Your task to perform on an android device: snooze an email in the gmail app Image 0: 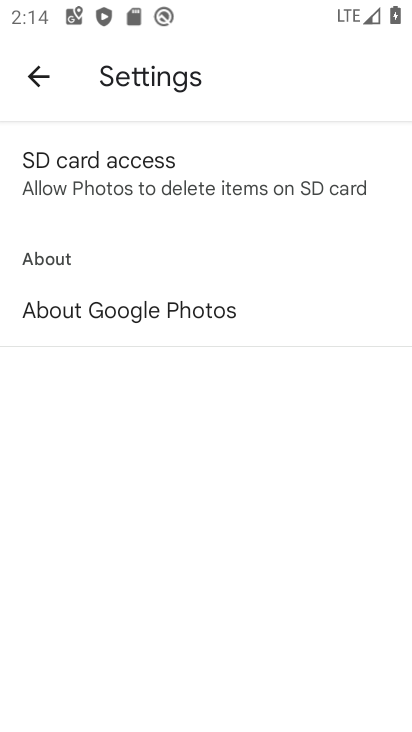
Step 0: press home button
Your task to perform on an android device: snooze an email in the gmail app Image 1: 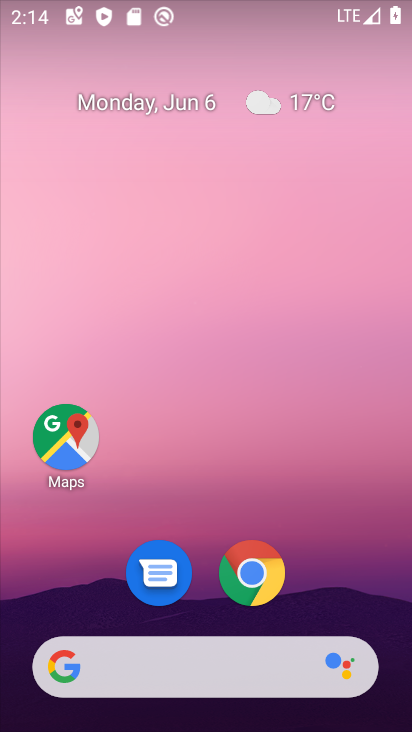
Step 1: drag from (355, 612) to (362, 290)
Your task to perform on an android device: snooze an email in the gmail app Image 2: 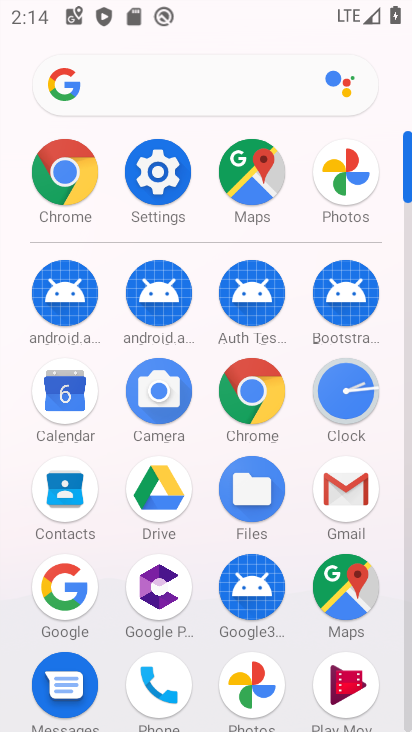
Step 2: click (348, 491)
Your task to perform on an android device: snooze an email in the gmail app Image 3: 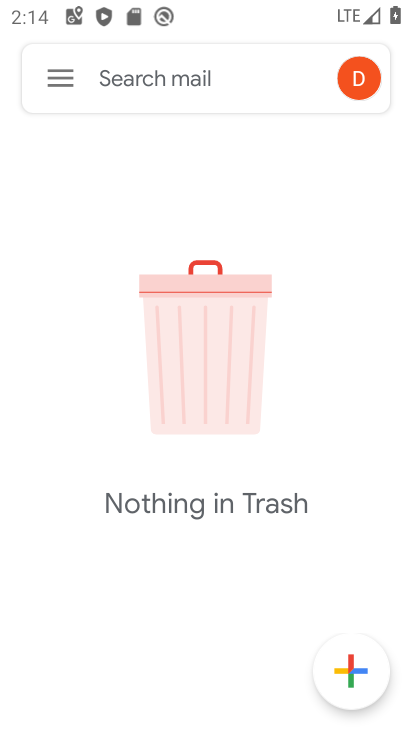
Step 3: click (48, 84)
Your task to perform on an android device: snooze an email in the gmail app Image 4: 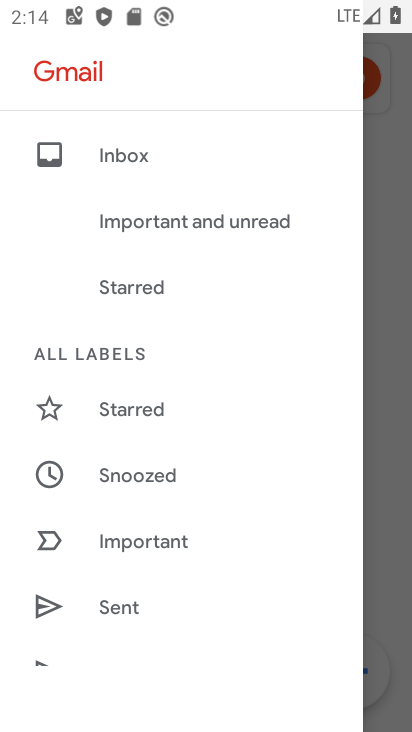
Step 4: drag from (265, 491) to (281, 367)
Your task to perform on an android device: snooze an email in the gmail app Image 5: 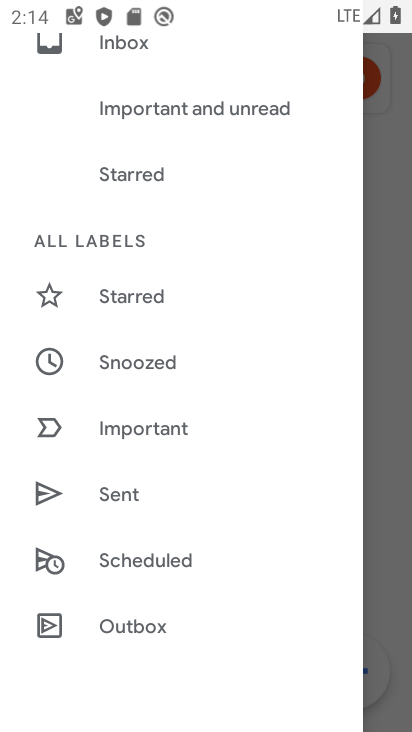
Step 5: drag from (278, 559) to (293, 409)
Your task to perform on an android device: snooze an email in the gmail app Image 6: 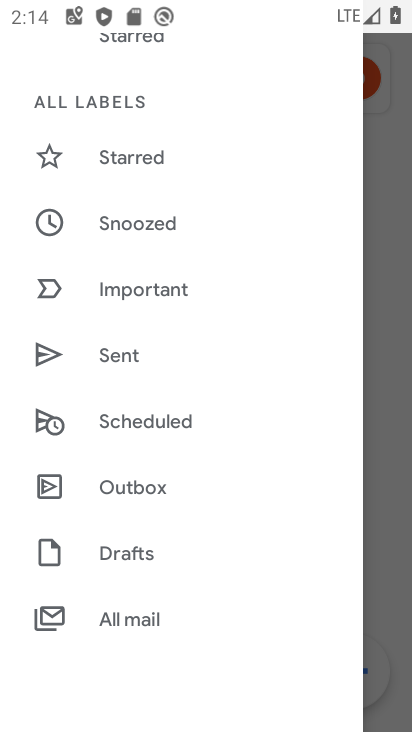
Step 6: drag from (272, 576) to (305, 370)
Your task to perform on an android device: snooze an email in the gmail app Image 7: 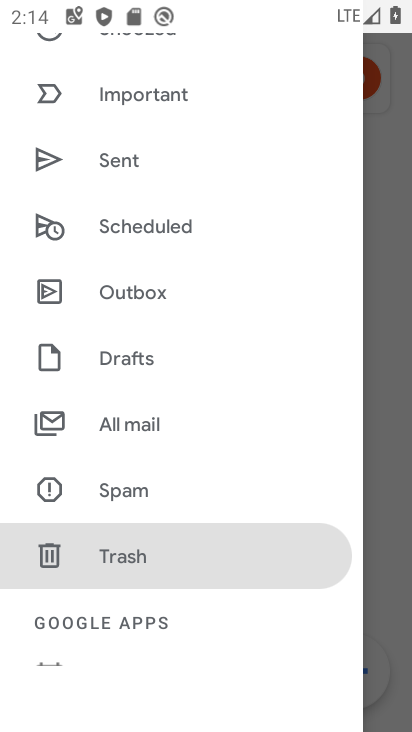
Step 7: drag from (291, 290) to (299, 439)
Your task to perform on an android device: snooze an email in the gmail app Image 8: 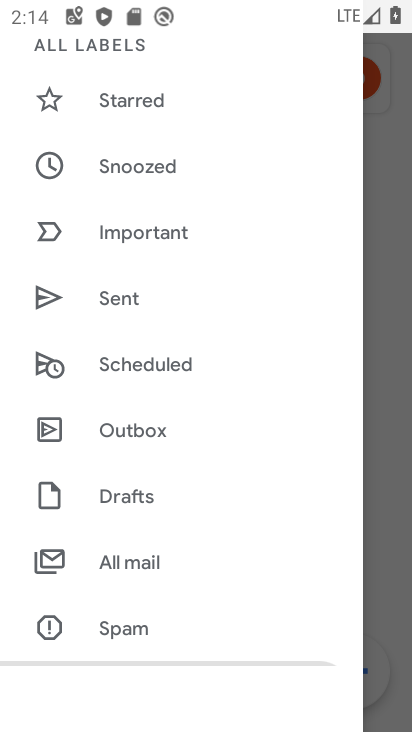
Step 8: drag from (294, 243) to (315, 410)
Your task to perform on an android device: snooze an email in the gmail app Image 9: 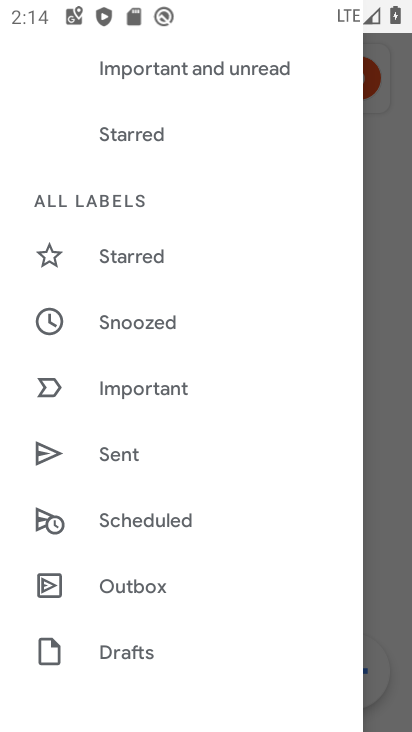
Step 9: drag from (271, 204) to (279, 322)
Your task to perform on an android device: snooze an email in the gmail app Image 10: 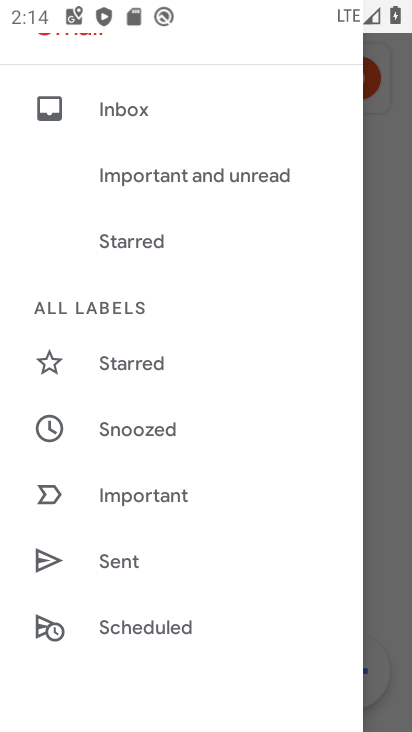
Step 10: click (198, 442)
Your task to perform on an android device: snooze an email in the gmail app Image 11: 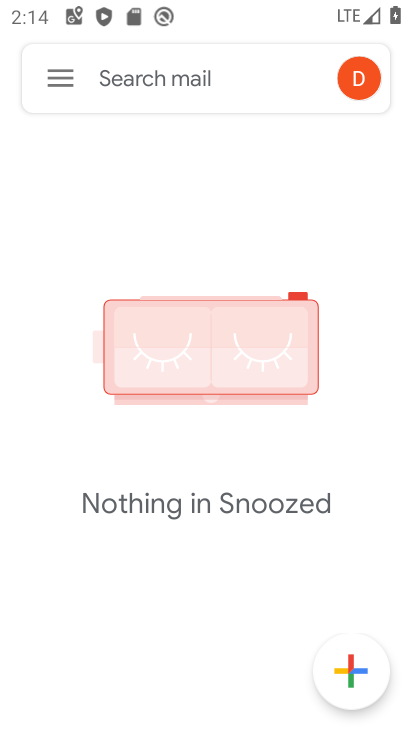
Step 11: task complete